Your task to perform on an android device: set an alarm Image 0: 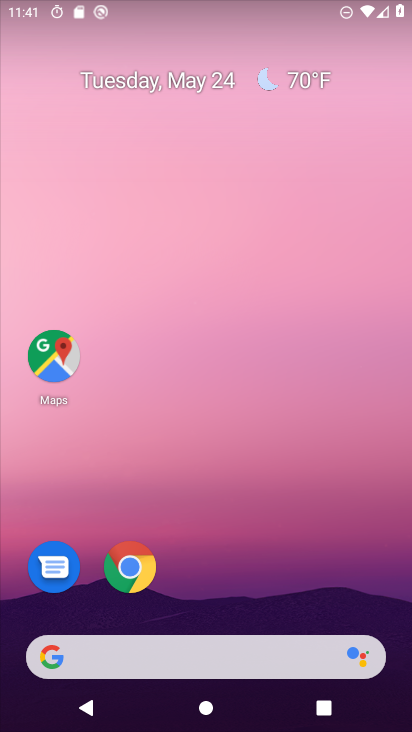
Step 0: drag from (396, 636) to (366, 283)
Your task to perform on an android device: set an alarm Image 1: 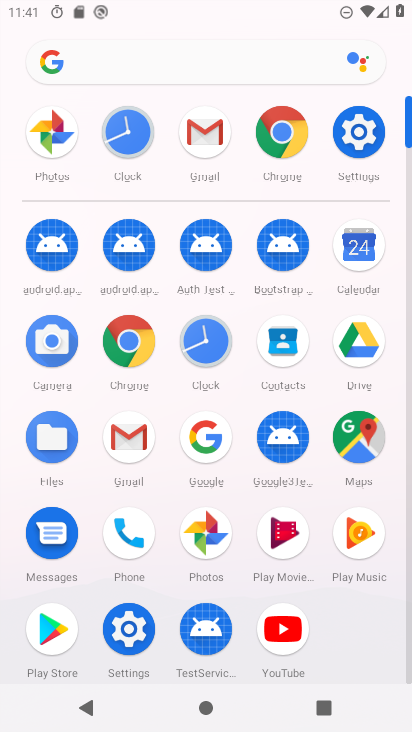
Step 1: click (212, 322)
Your task to perform on an android device: set an alarm Image 2: 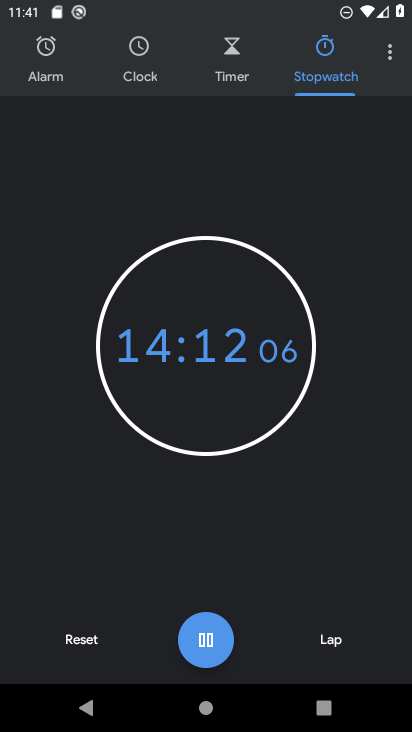
Step 2: click (43, 57)
Your task to perform on an android device: set an alarm Image 3: 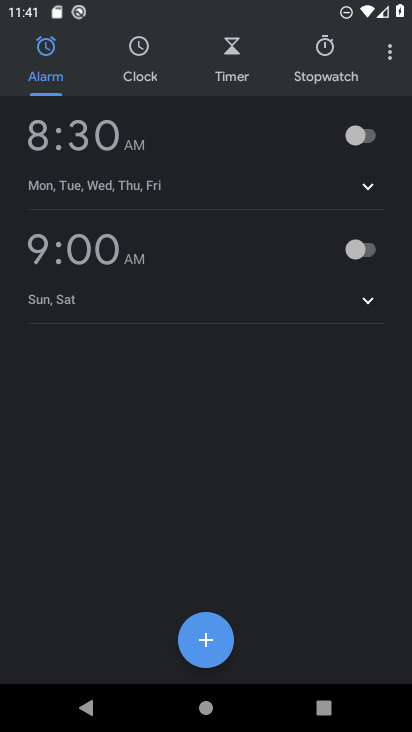
Step 3: click (365, 133)
Your task to perform on an android device: set an alarm Image 4: 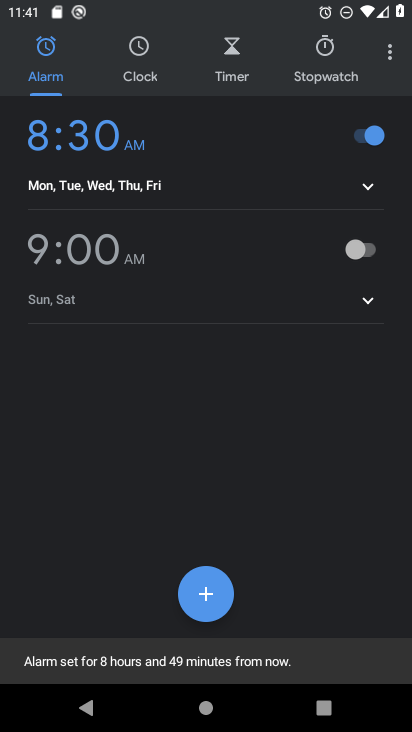
Step 4: task complete